Your task to perform on an android device: Go to Google Image 0: 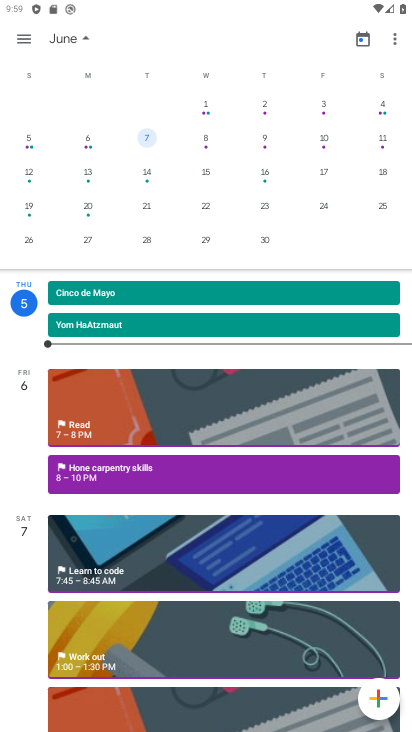
Step 0: press home button
Your task to perform on an android device: Go to Google Image 1: 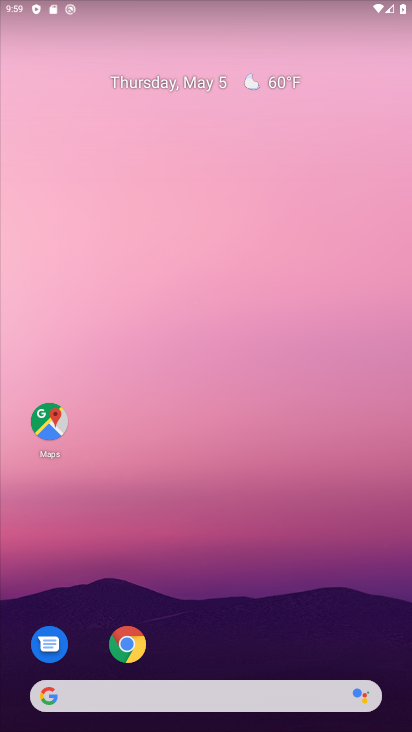
Step 1: drag from (355, 621) to (390, 307)
Your task to perform on an android device: Go to Google Image 2: 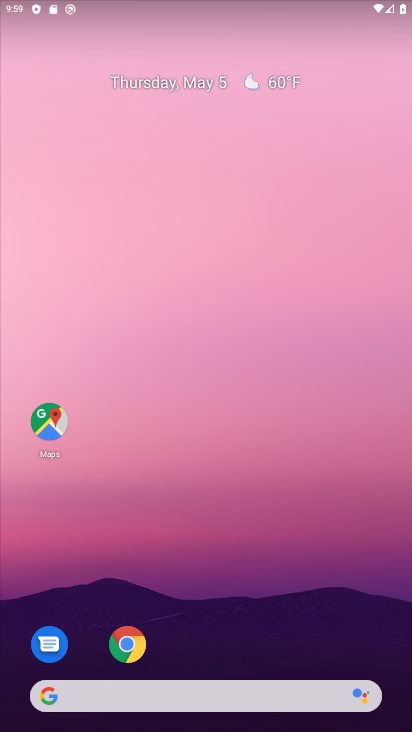
Step 2: drag from (317, 603) to (294, 131)
Your task to perform on an android device: Go to Google Image 3: 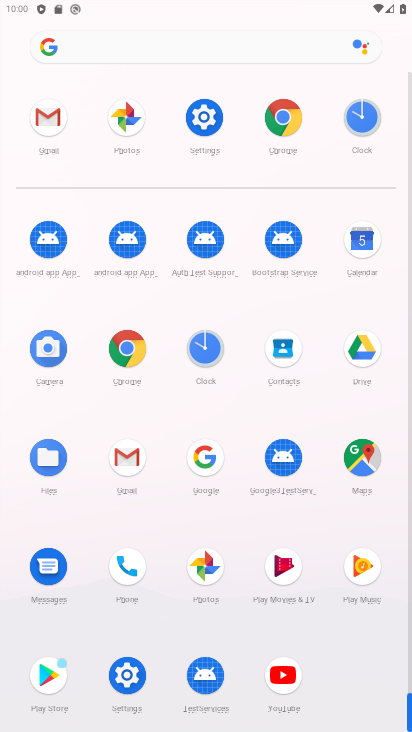
Step 3: click (200, 462)
Your task to perform on an android device: Go to Google Image 4: 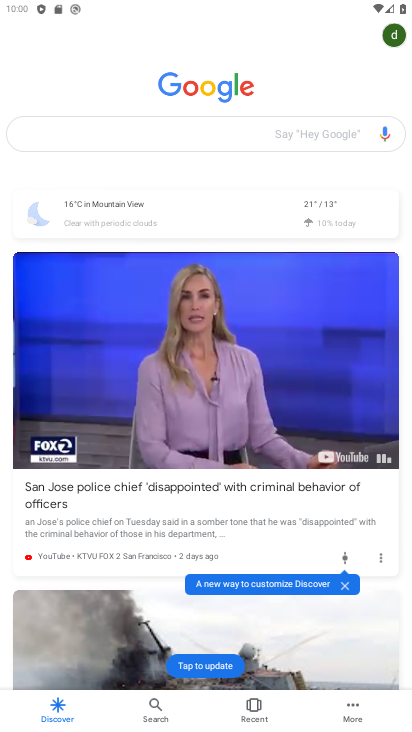
Step 4: task complete